Your task to perform on an android device: Open display settings Image 0: 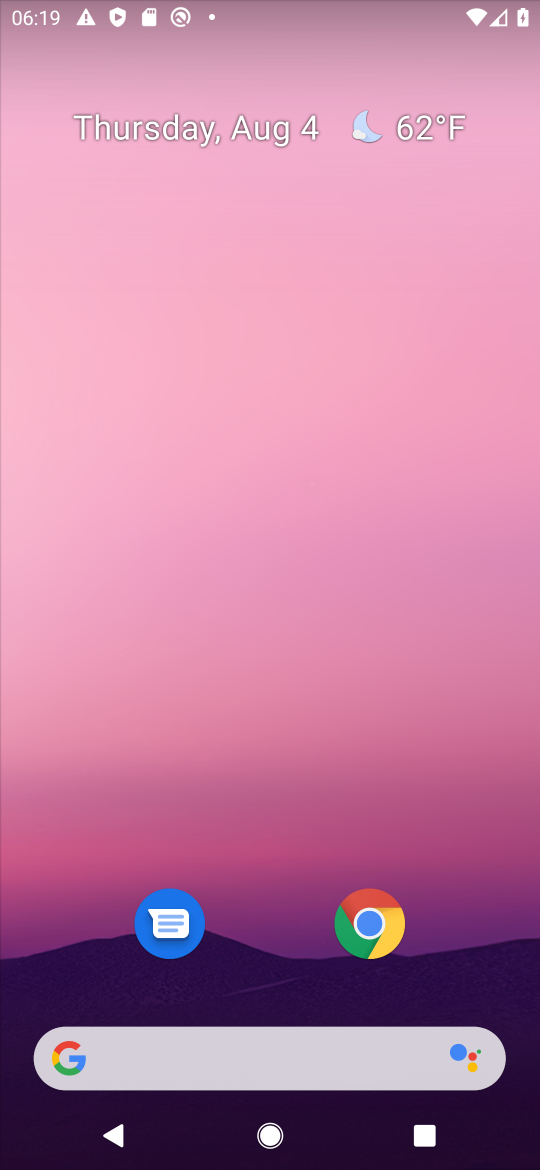
Step 0: drag from (471, 976) to (388, 289)
Your task to perform on an android device: Open display settings Image 1: 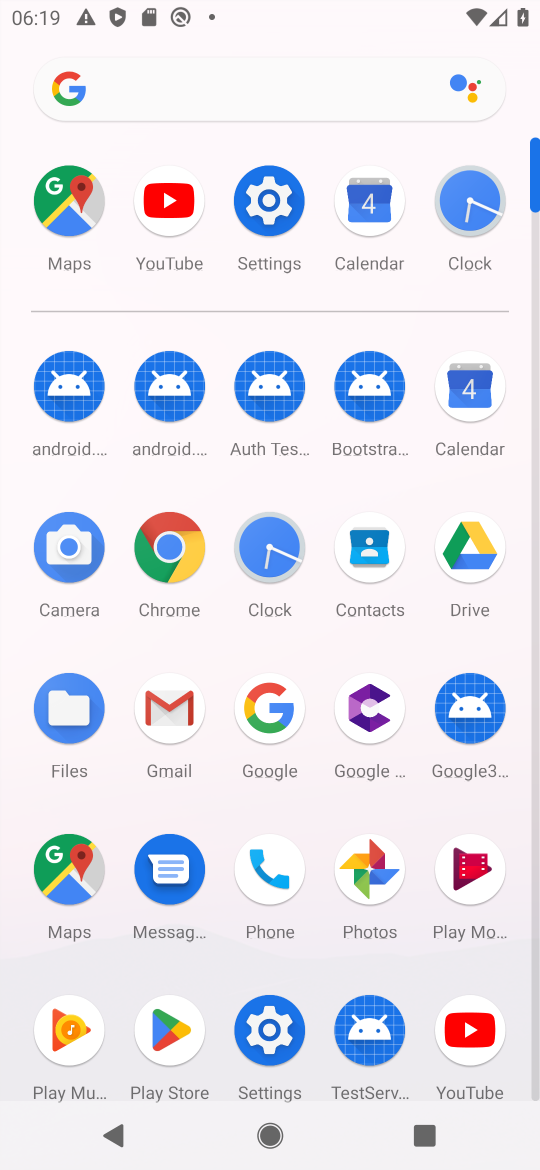
Step 1: click (267, 1036)
Your task to perform on an android device: Open display settings Image 2: 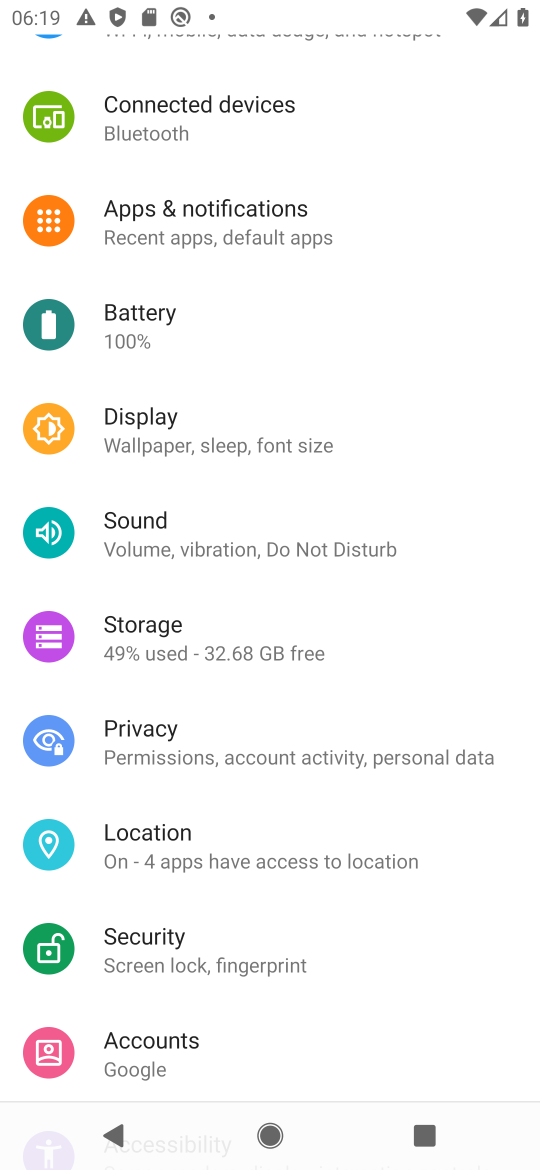
Step 2: click (236, 424)
Your task to perform on an android device: Open display settings Image 3: 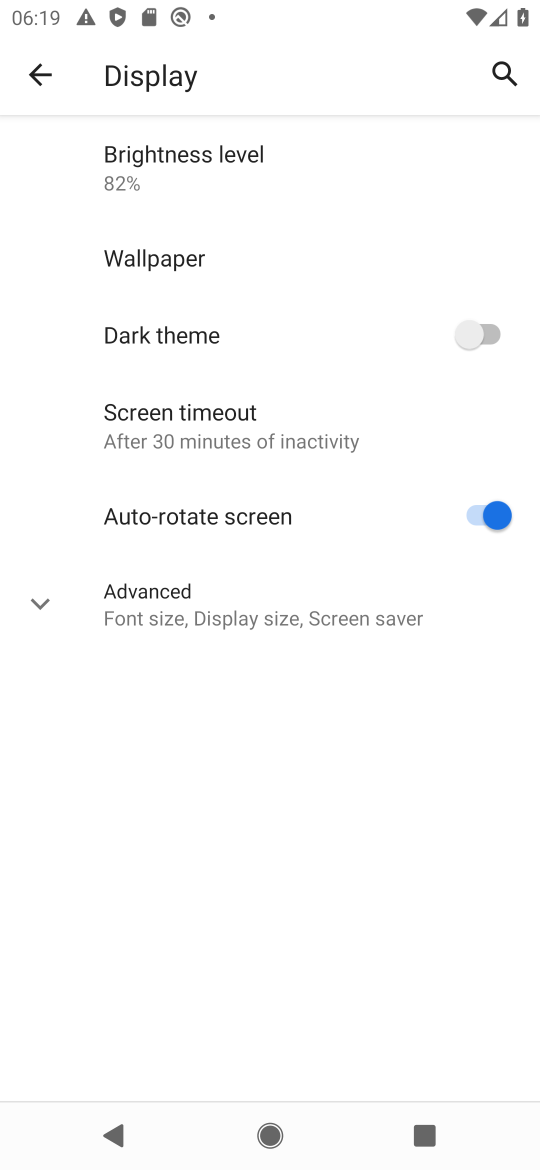
Step 3: task complete